Your task to perform on an android device: Go to wifi settings Image 0: 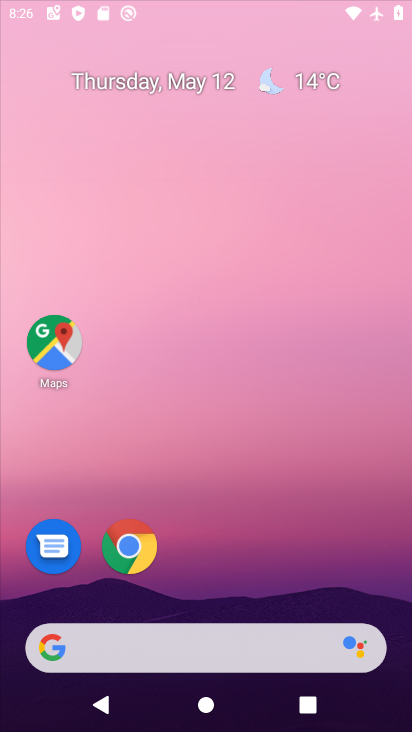
Step 0: drag from (332, 188) to (303, 162)
Your task to perform on an android device: Go to wifi settings Image 1: 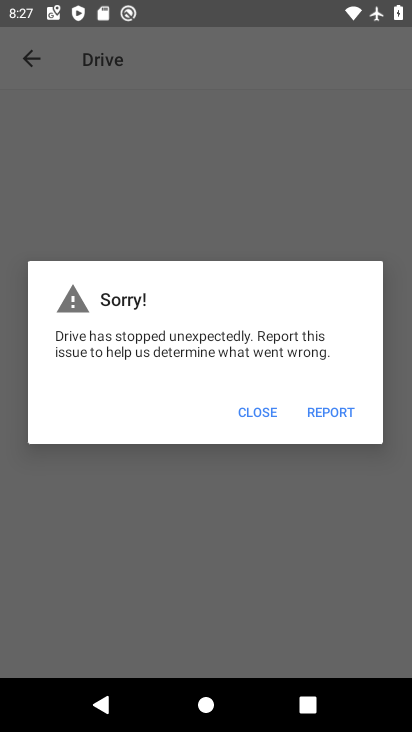
Step 1: press home button
Your task to perform on an android device: Go to wifi settings Image 2: 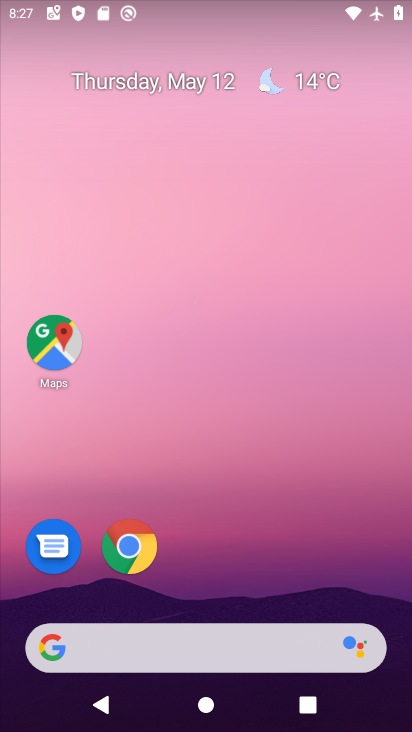
Step 2: drag from (152, 654) to (311, 71)
Your task to perform on an android device: Go to wifi settings Image 3: 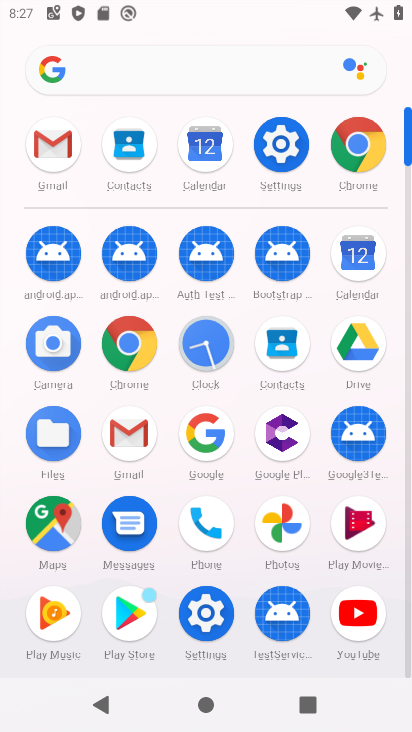
Step 3: click (288, 156)
Your task to perform on an android device: Go to wifi settings Image 4: 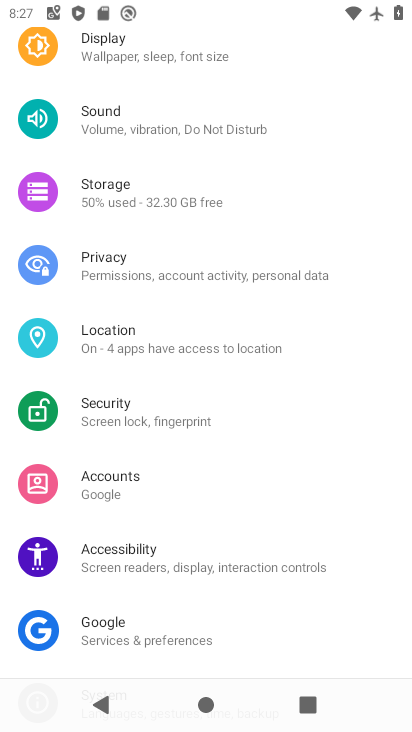
Step 4: drag from (319, 105) to (221, 465)
Your task to perform on an android device: Go to wifi settings Image 5: 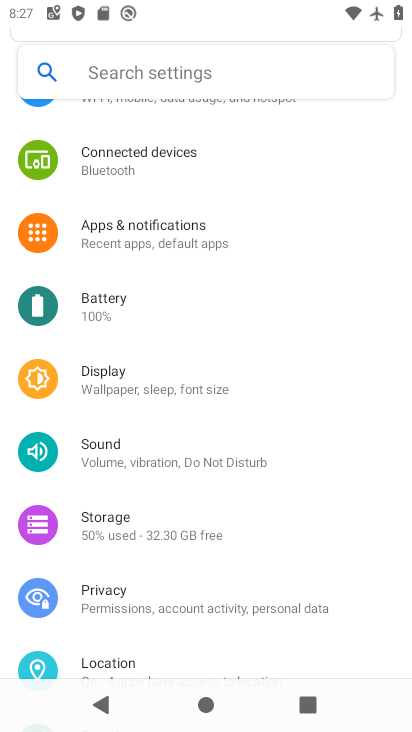
Step 5: drag from (258, 170) to (224, 556)
Your task to perform on an android device: Go to wifi settings Image 6: 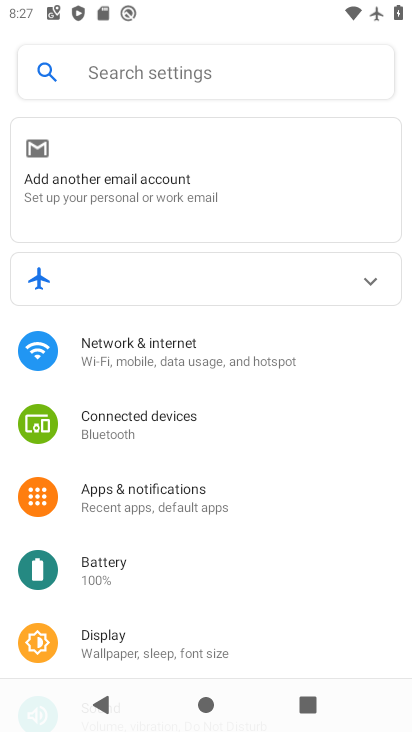
Step 6: click (174, 348)
Your task to perform on an android device: Go to wifi settings Image 7: 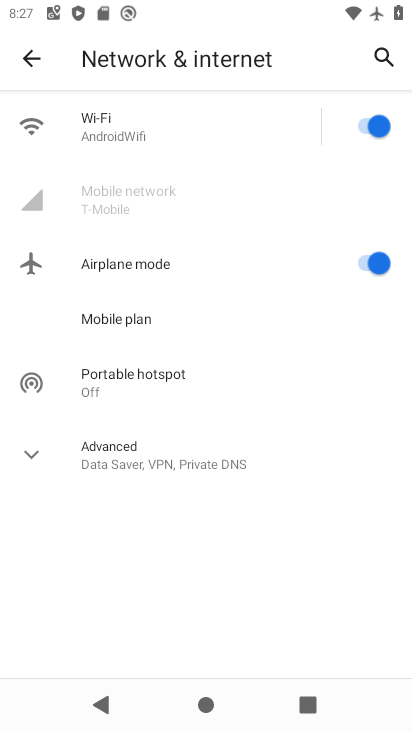
Step 7: click (126, 134)
Your task to perform on an android device: Go to wifi settings Image 8: 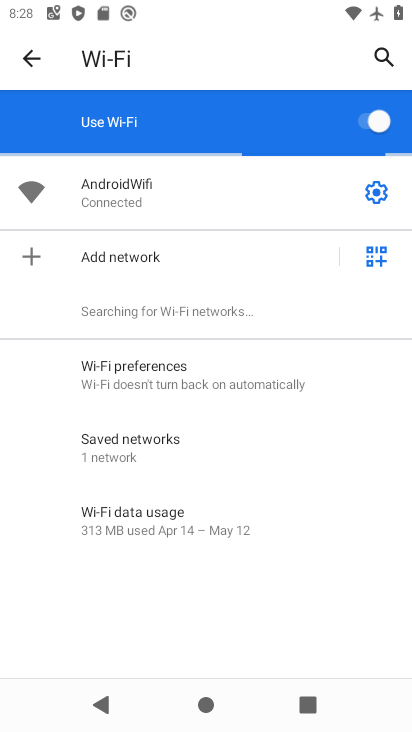
Step 8: task complete